Your task to perform on an android device: open a new tab in the chrome app Image 0: 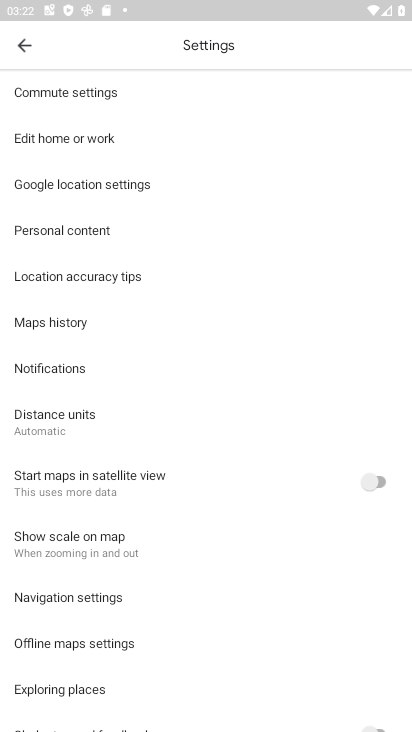
Step 0: press home button
Your task to perform on an android device: open a new tab in the chrome app Image 1: 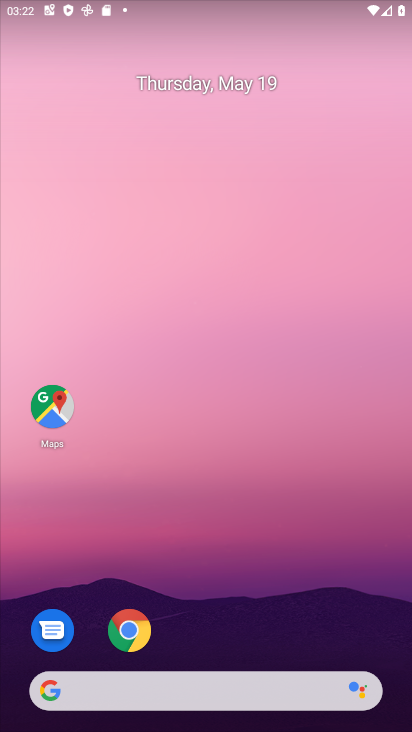
Step 1: click (131, 632)
Your task to perform on an android device: open a new tab in the chrome app Image 2: 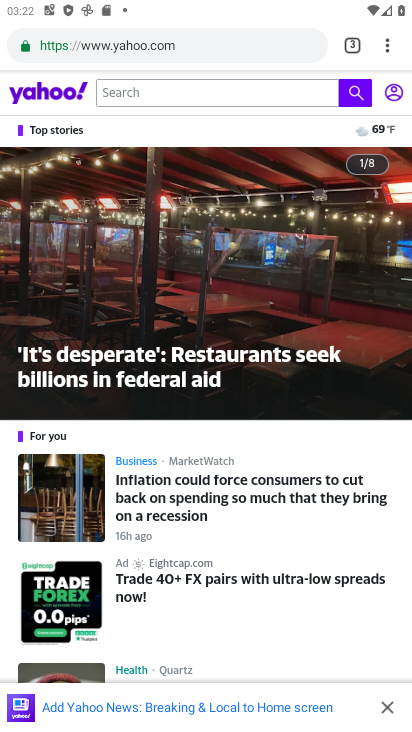
Step 2: click (387, 47)
Your task to perform on an android device: open a new tab in the chrome app Image 3: 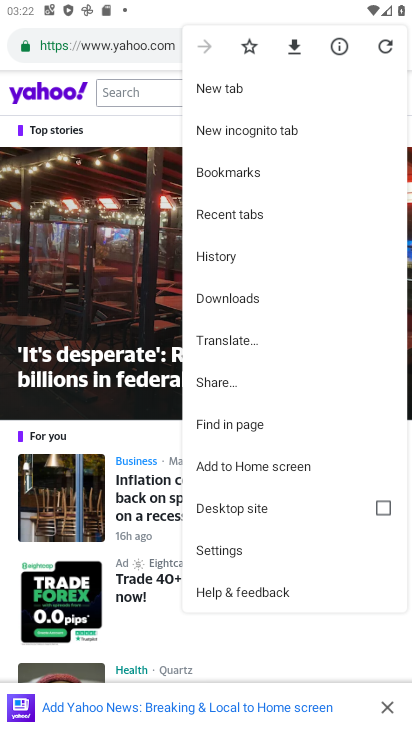
Step 3: click (221, 87)
Your task to perform on an android device: open a new tab in the chrome app Image 4: 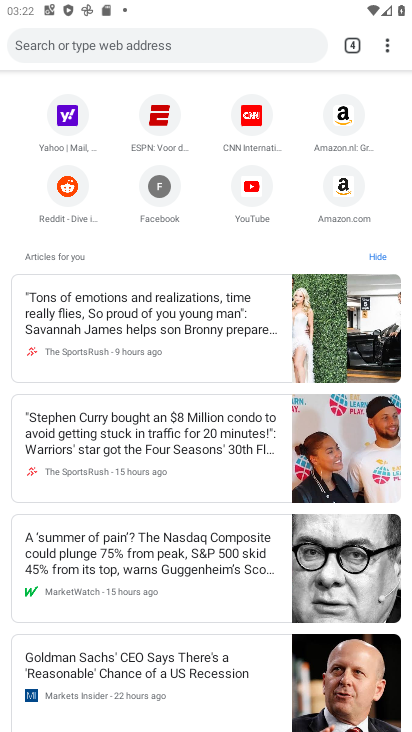
Step 4: task complete